Your task to perform on an android device: Go to battery settings Image 0: 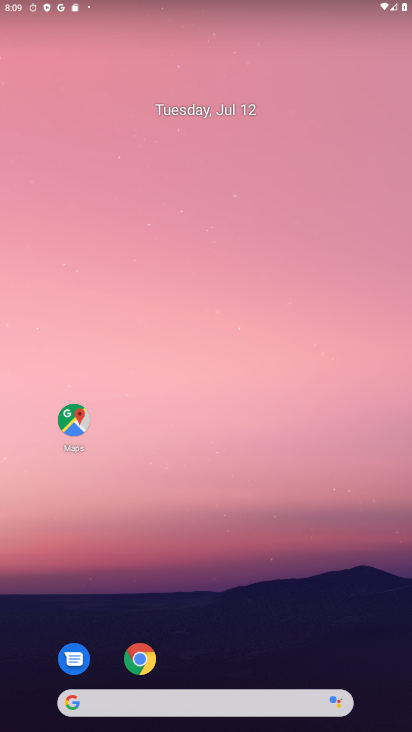
Step 0: drag from (221, 694) to (161, 252)
Your task to perform on an android device: Go to battery settings Image 1: 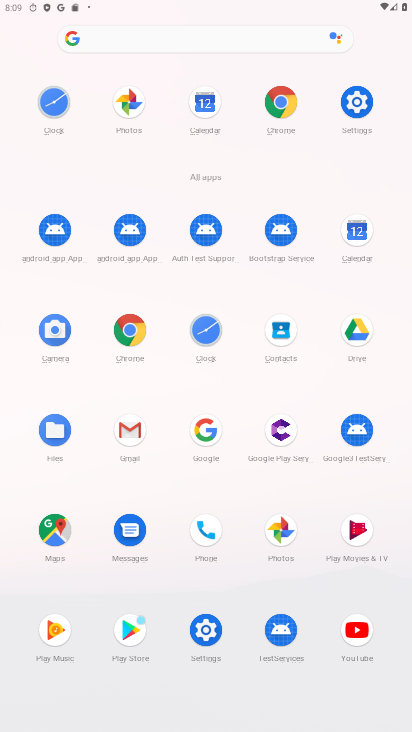
Step 1: click (210, 625)
Your task to perform on an android device: Go to battery settings Image 2: 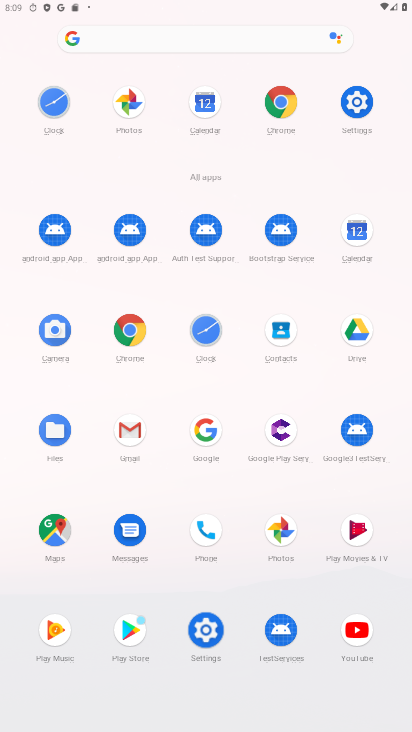
Step 2: click (210, 625)
Your task to perform on an android device: Go to battery settings Image 3: 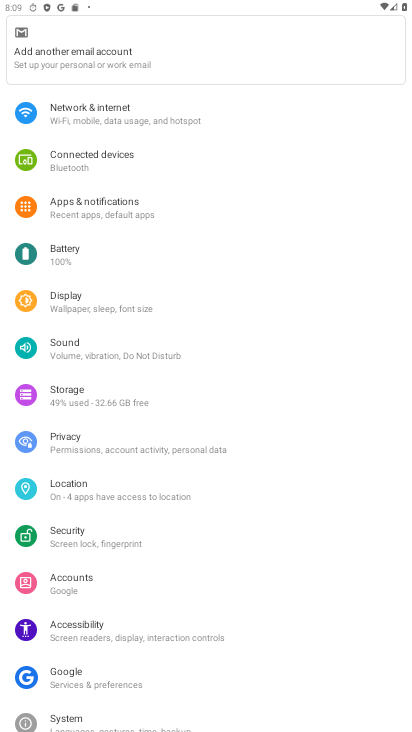
Step 3: click (70, 240)
Your task to perform on an android device: Go to battery settings Image 4: 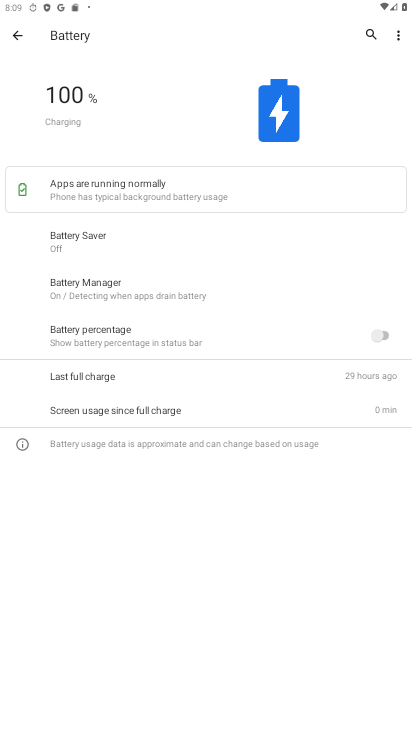
Step 4: task complete